Your task to perform on an android device: set default search engine in the chrome app Image 0: 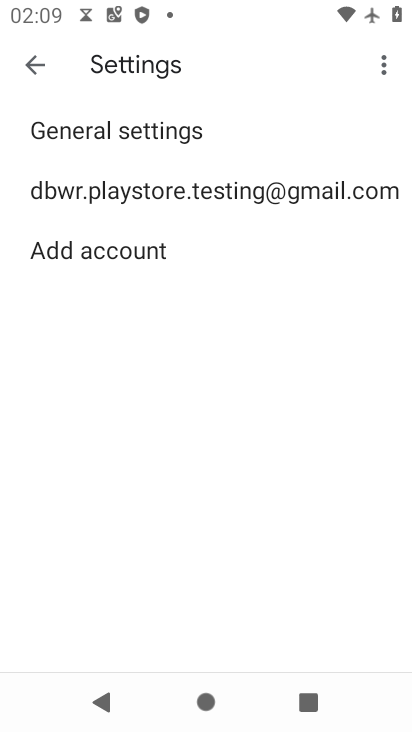
Step 0: press home button
Your task to perform on an android device: set default search engine in the chrome app Image 1: 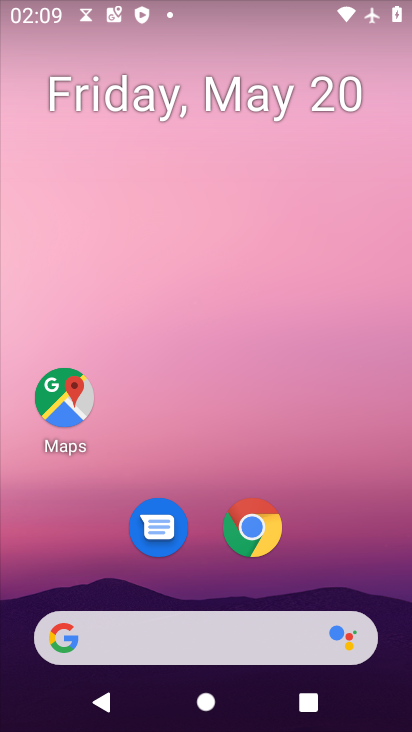
Step 1: click (253, 533)
Your task to perform on an android device: set default search engine in the chrome app Image 2: 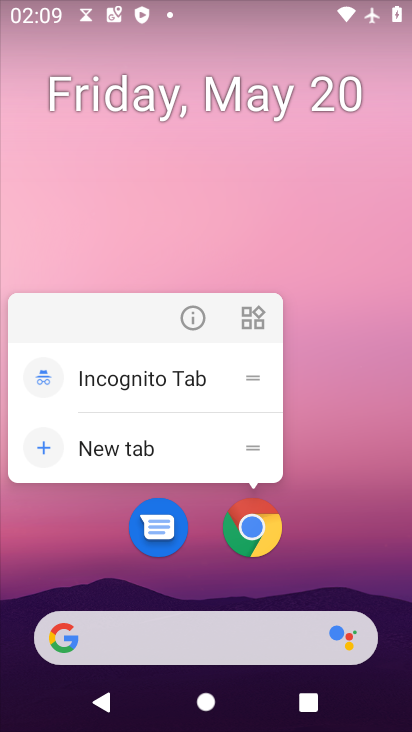
Step 2: click (251, 540)
Your task to perform on an android device: set default search engine in the chrome app Image 3: 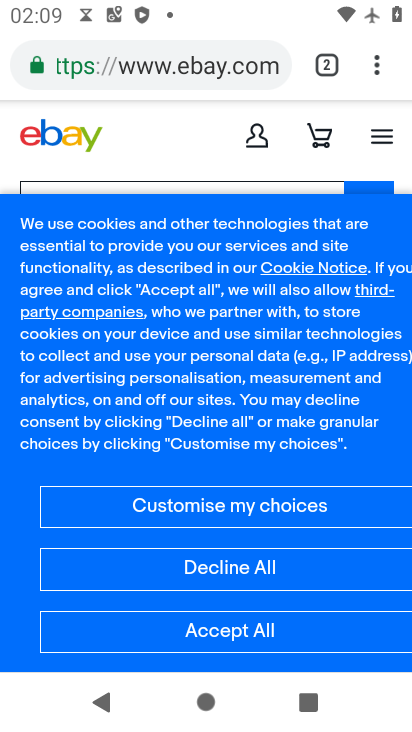
Step 3: drag from (377, 70) to (278, 573)
Your task to perform on an android device: set default search engine in the chrome app Image 4: 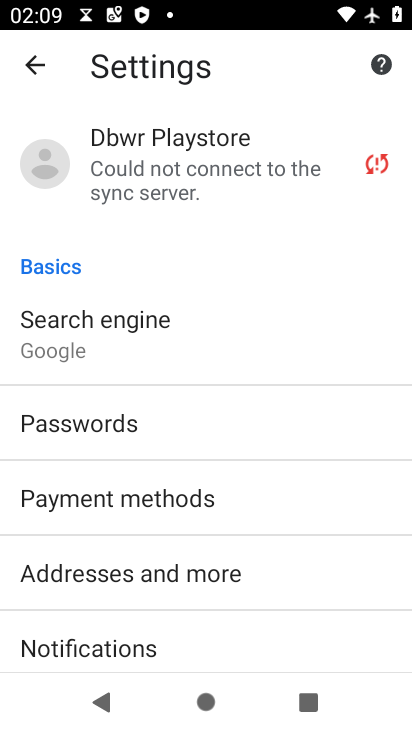
Step 4: click (113, 363)
Your task to perform on an android device: set default search engine in the chrome app Image 5: 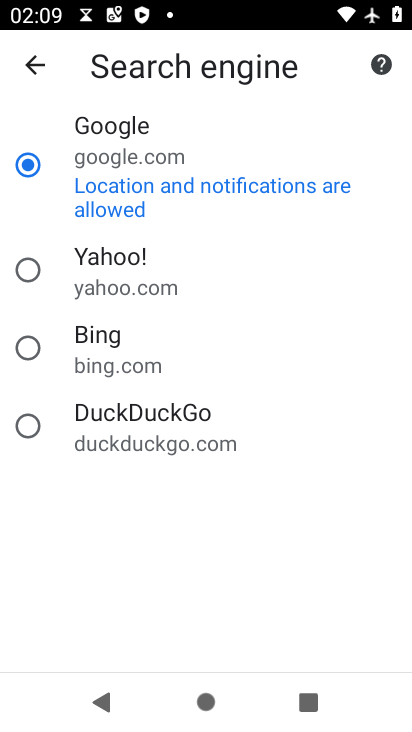
Step 5: click (30, 265)
Your task to perform on an android device: set default search engine in the chrome app Image 6: 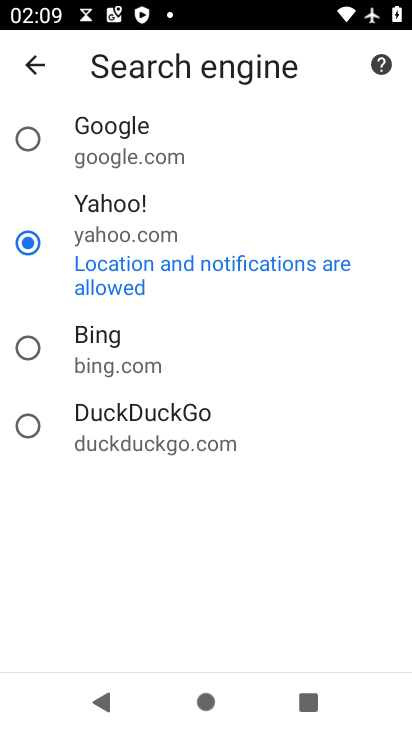
Step 6: task complete